Your task to perform on an android device: set the stopwatch Image 0: 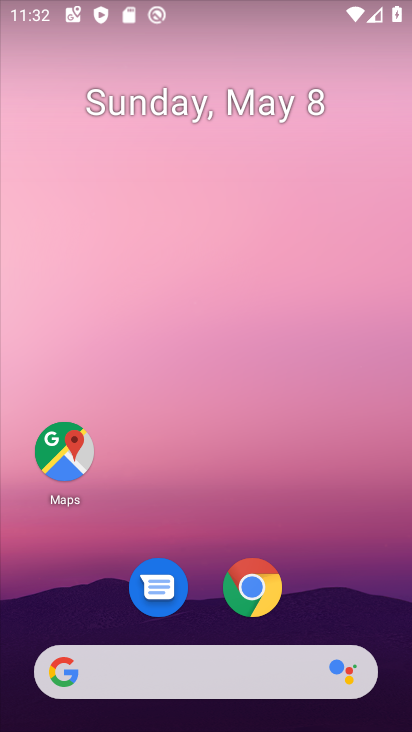
Step 0: drag from (377, 606) to (234, 186)
Your task to perform on an android device: set the stopwatch Image 1: 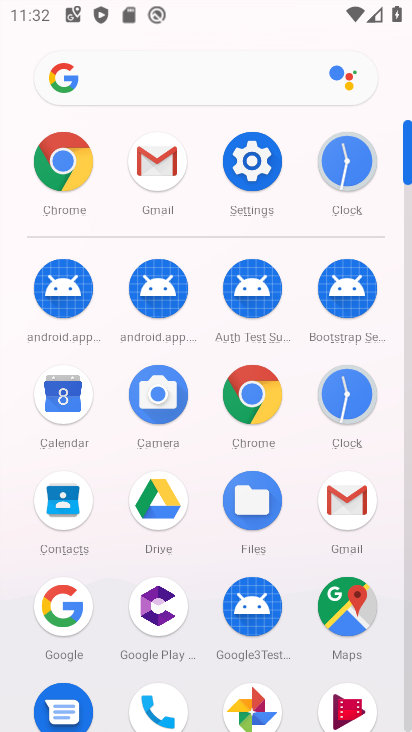
Step 1: click (343, 389)
Your task to perform on an android device: set the stopwatch Image 2: 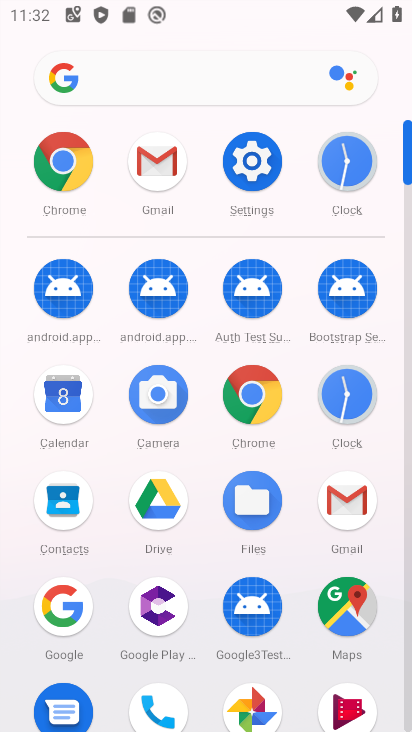
Step 2: click (343, 390)
Your task to perform on an android device: set the stopwatch Image 3: 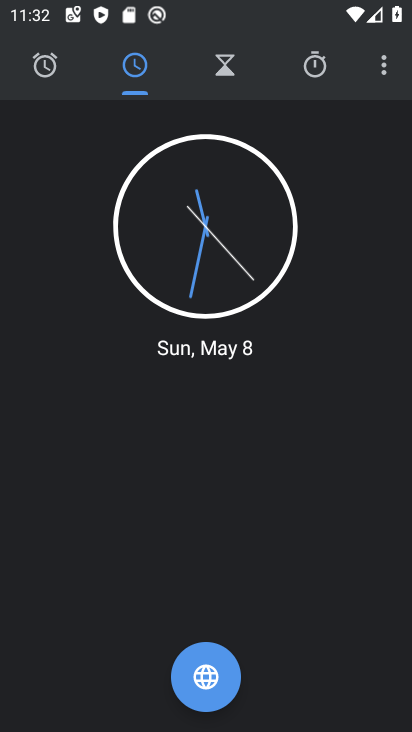
Step 3: click (343, 390)
Your task to perform on an android device: set the stopwatch Image 4: 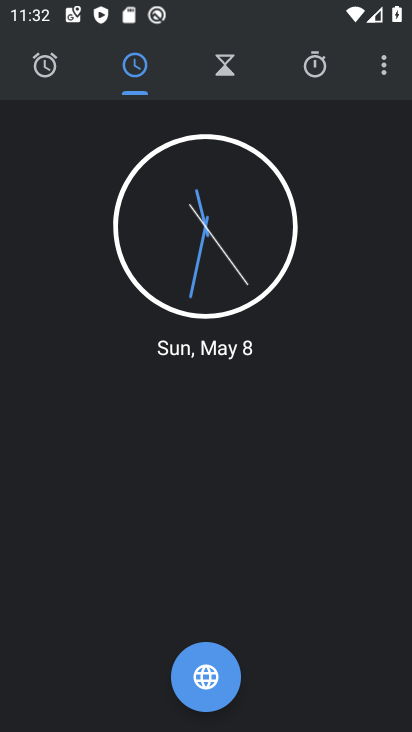
Step 4: click (386, 65)
Your task to perform on an android device: set the stopwatch Image 5: 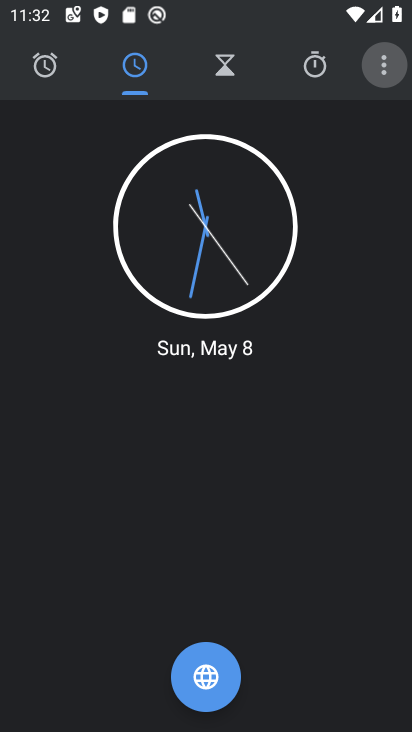
Step 5: click (386, 65)
Your task to perform on an android device: set the stopwatch Image 6: 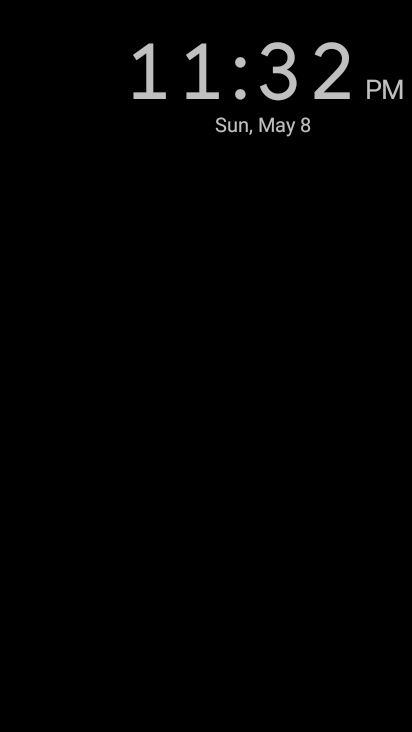
Step 6: press home button
Your task to perform on an android device: set the stopwatch Image 7: 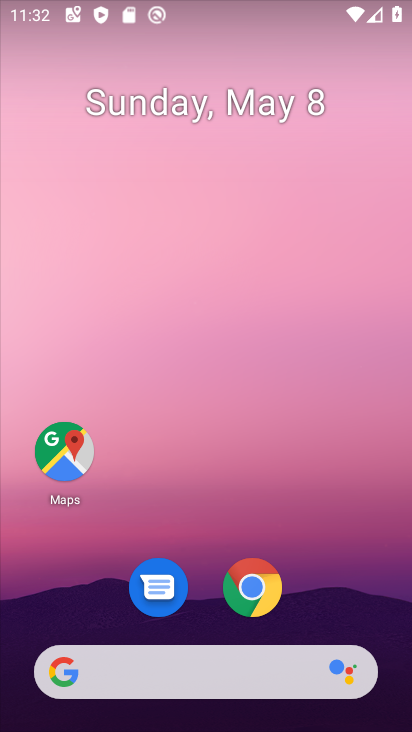
Step 7: drag from (330, 493) to (213, 201)
Your task to perform on an android device: set the stopwatch Image 8: 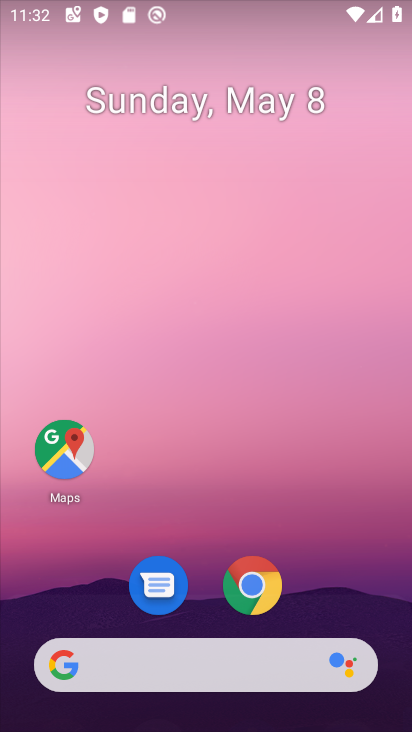
Step 8: drag from (315, 498) to (279, 64)
Your task to perform on an android device: set the stopwatch Image 9: 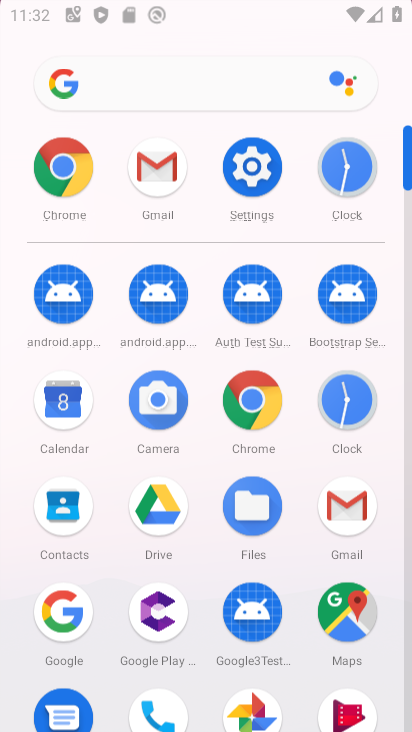
Step 9: drag from (297, 566) to (230, 9)
Your task to perform on an android device: set the stopwatch Image 10: 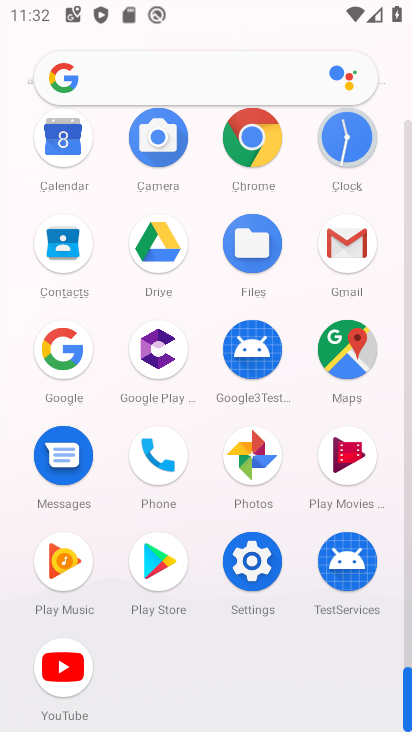
Step 10: click (349, 146)
Your task to perform on an android device: set the stopwatch Image 11: 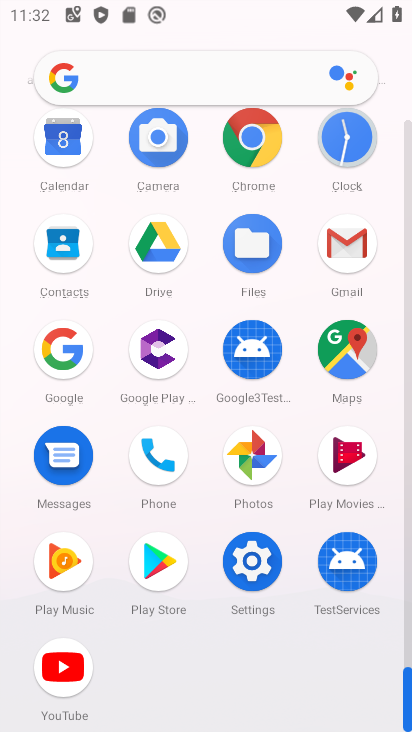
Step 11: click (349, 146)
Your task to perform on an android device: set the stopwatch Image 12: 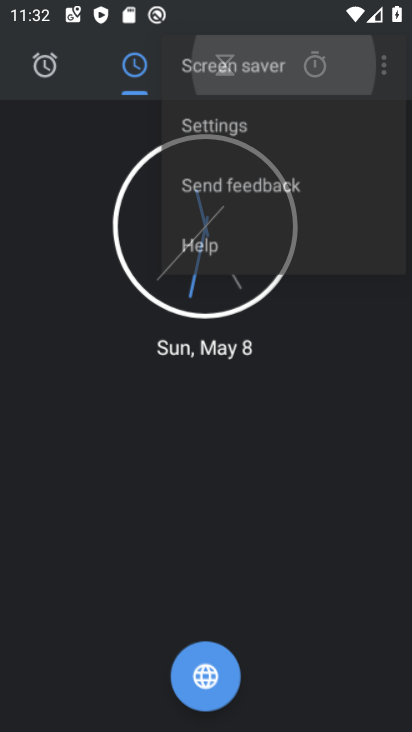
Step 12: click (349, 146)
Your task to perform on an android device: set the stopwatch Image 13: 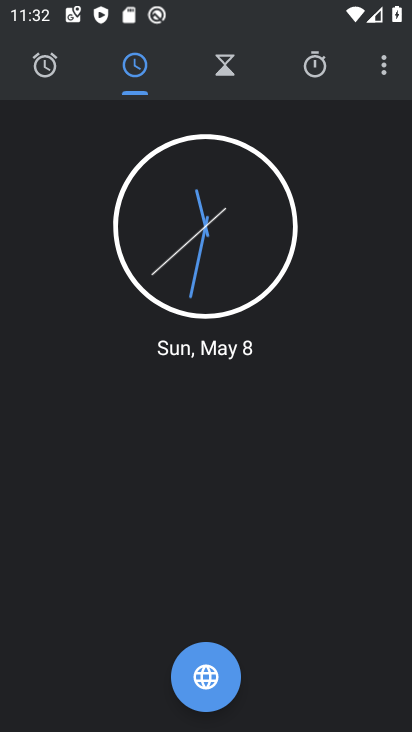
Step 13: click (382, 74)
Your task to perform on an android device: set the stopwatch Image 14: 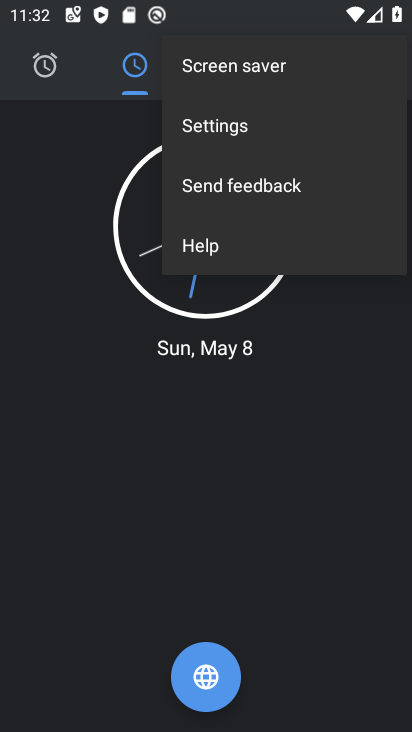
Step 14: click (57, 368)
Your task to perform on an android device: set the stopwatch Image 15: 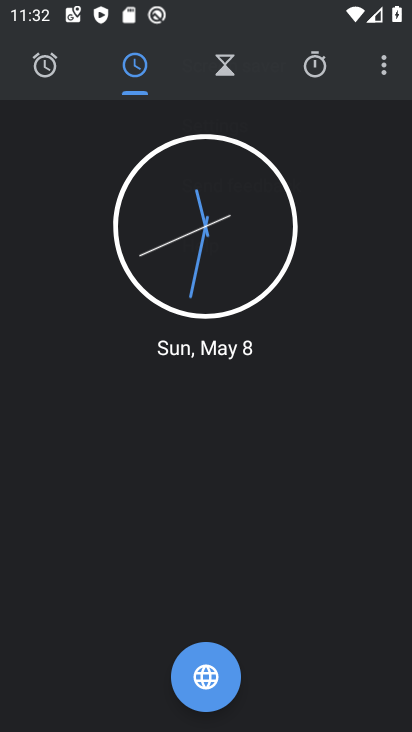
Step 15: click (59, 372)
Your task to perform on an android device: set the stopwatch Image 16: 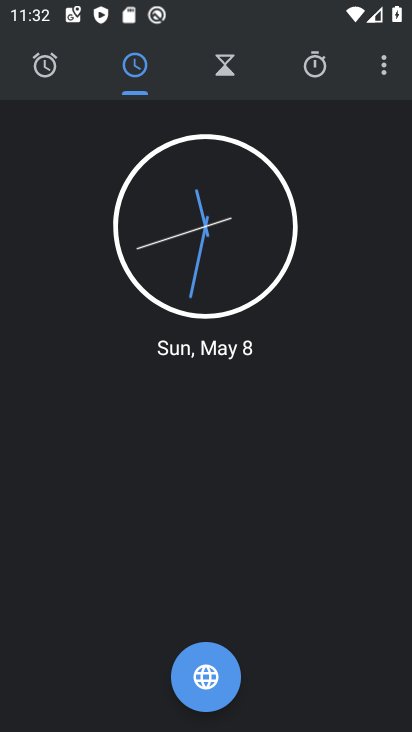
Step 16: click (321, 73)
Your task to perform on an android device: set the stopwatch Image 17: 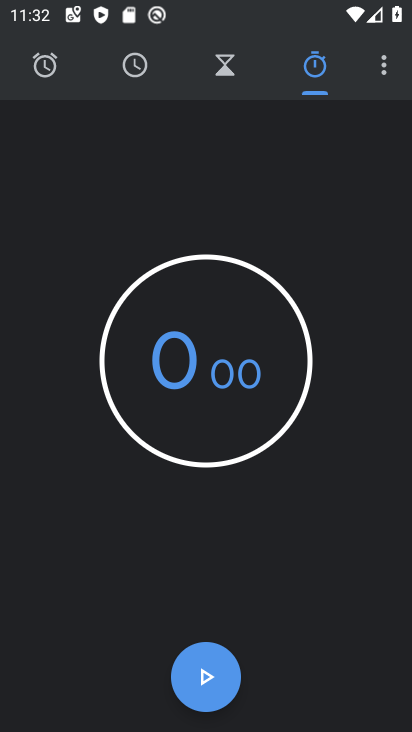
Step 17: click (182, 683)
Your task to perform on an android device: set the stopwatch Image 18: 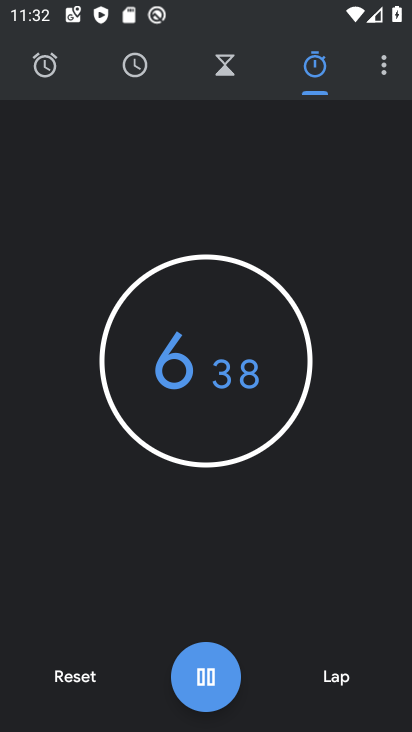
Step 18: click (228, 663)
Your task to perform on an android device: set the stopwatch Image 19: 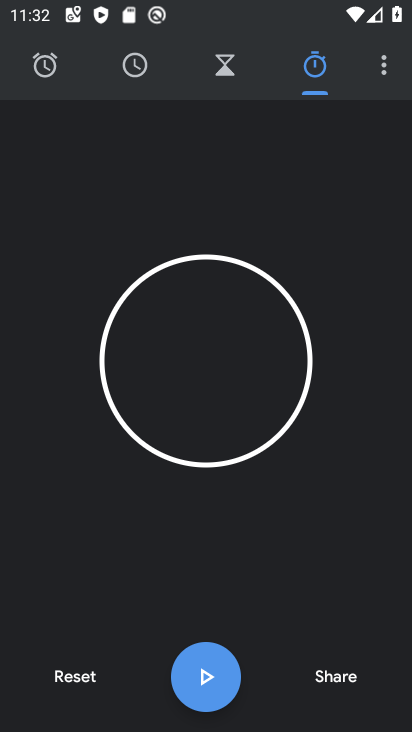
Step 19: click (215, 677)
Your task to perform on an android device: set the stopwatch Image 20: 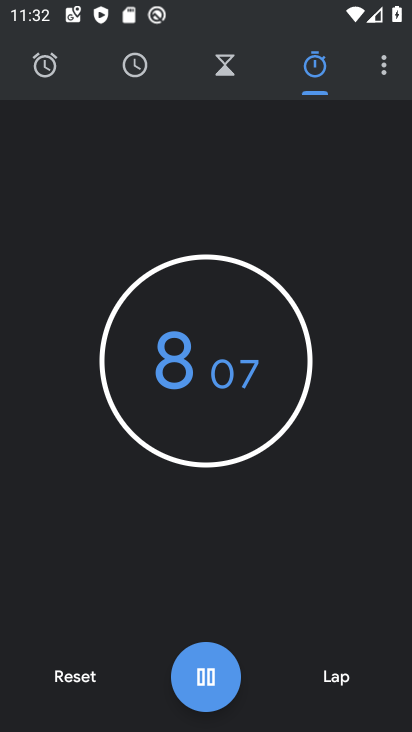
Step 20: task complete